Your task to perform on an android device: Do I have any events this weekend? Image 0: 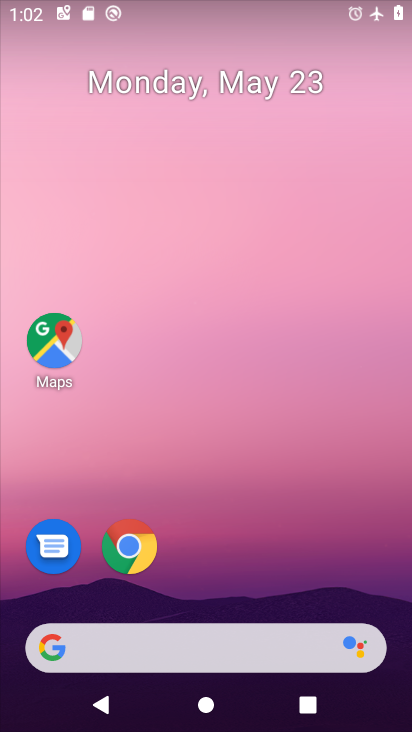
Step 0: drag from (239, 610) to (294, 55)
Your task to perform on an android device: Do I have any events this weekend? Image 1: 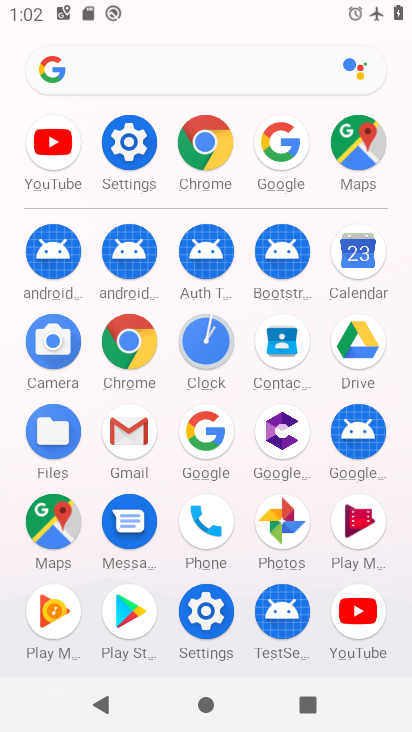
Step 1: click (366, 264)
Your task to perform on an android device: Do I have any events this weekend? Image 2: 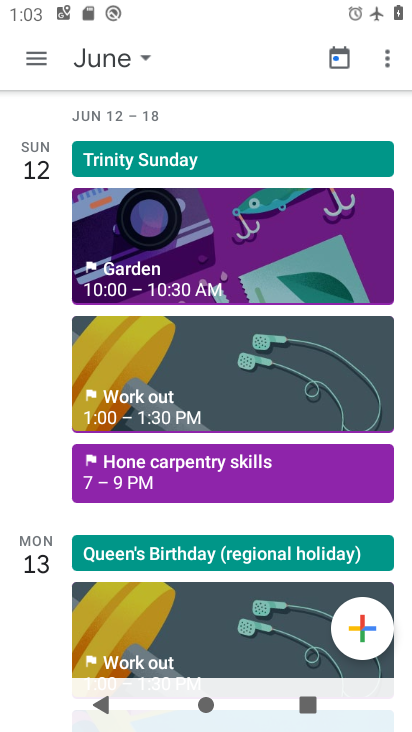
Step 2: click (119, 61)
Your task to perform on an android device: Do I have any events this weekend? Image 3: 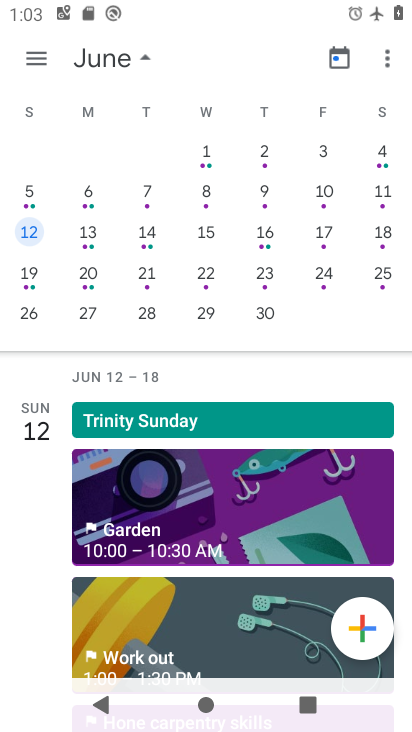
Step 3: drag from (45, 230) to (400, 316)
Your task to perform on an android device: Do I have any events this weekend? Image 4: 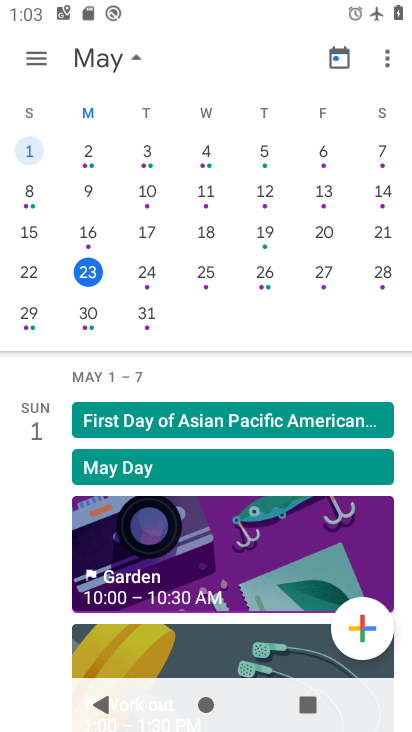
Step 4: click (373, 277)
Your task to perform on an android device: Do I have any events this weekend? Image 5: 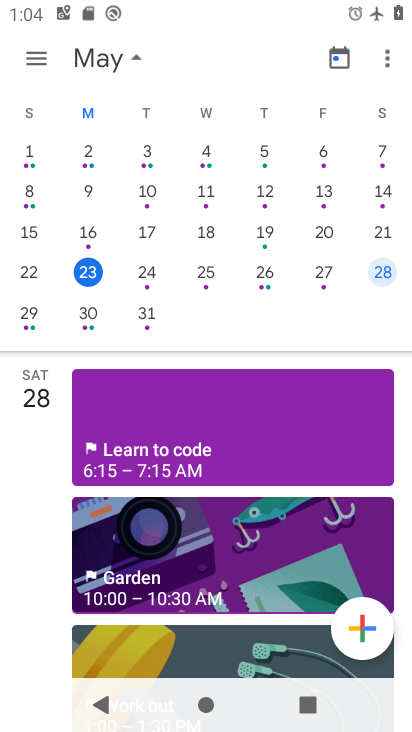
Step 5: task complete